Your task to perform on an android device: What is the news today? Image 0: 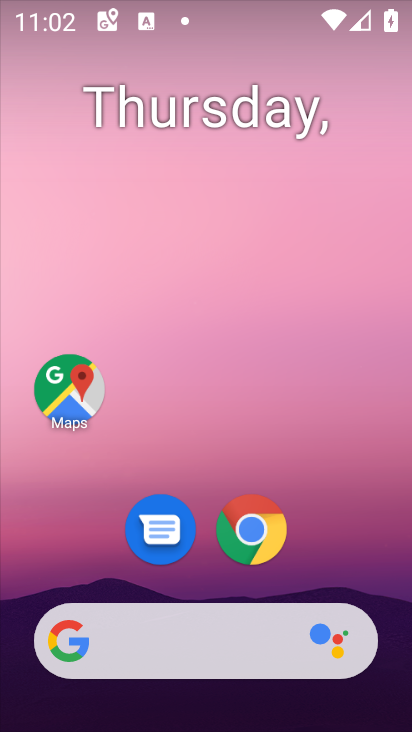
Step 0: drag from (153, 487) to (160, 182)
Your task to perform on an android device: What is the news today? Image 1: 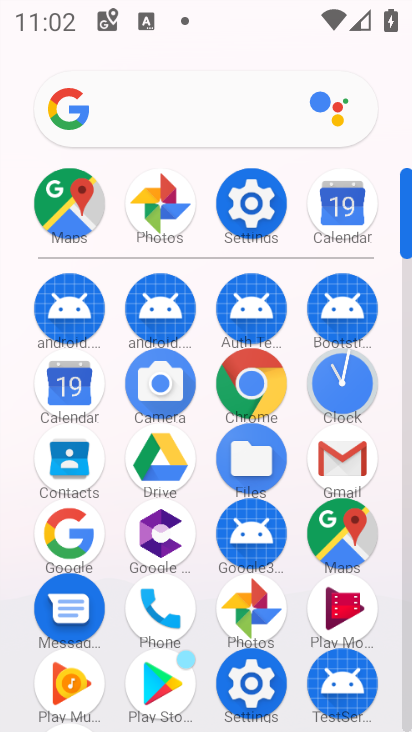
Step 1: drag from (128, 402) to (132, 271)
Your task to perform on an android device: What is the news today? Image 2: 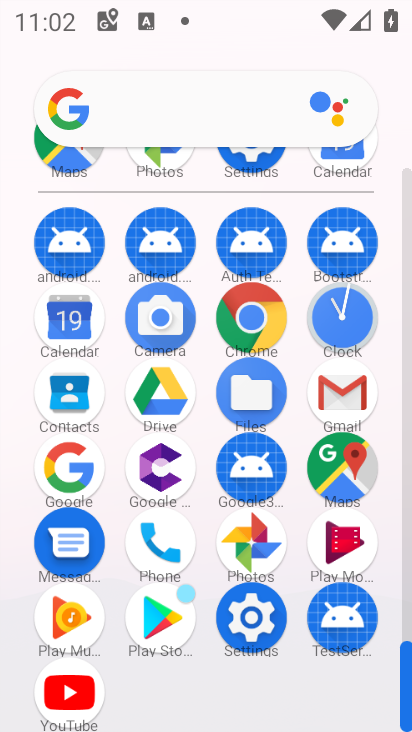
Step 2: click (57, 476)
Your task to perform on an android device: What is the news today? Image 3: 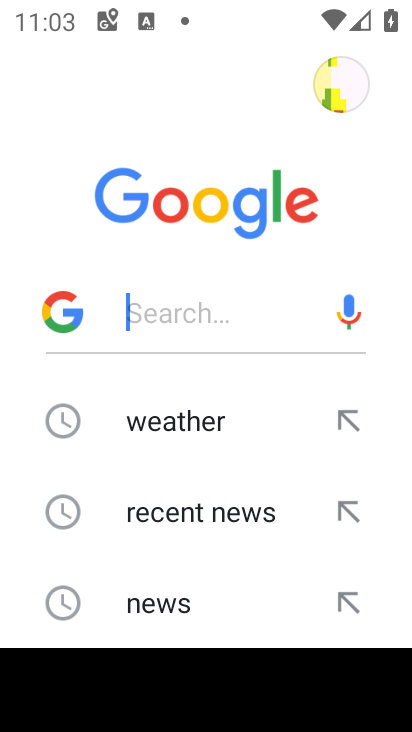
Step 3: click (184, 593)
Your task to perform on an android device: What is the news today? Image 4: 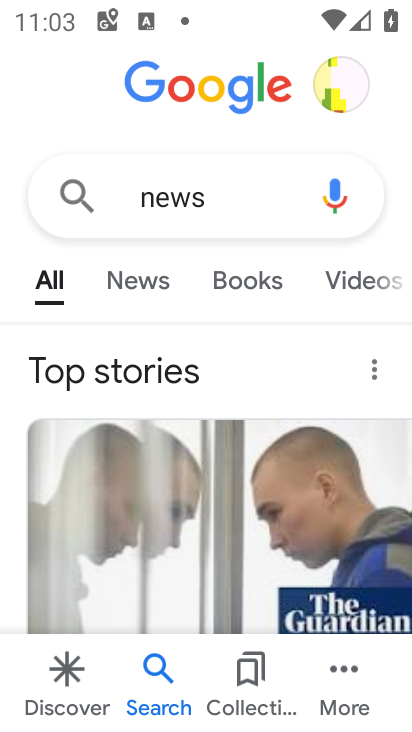
Step 4: click (122, 299)
Your task to perform on an android device: What is the news today? Image 5: 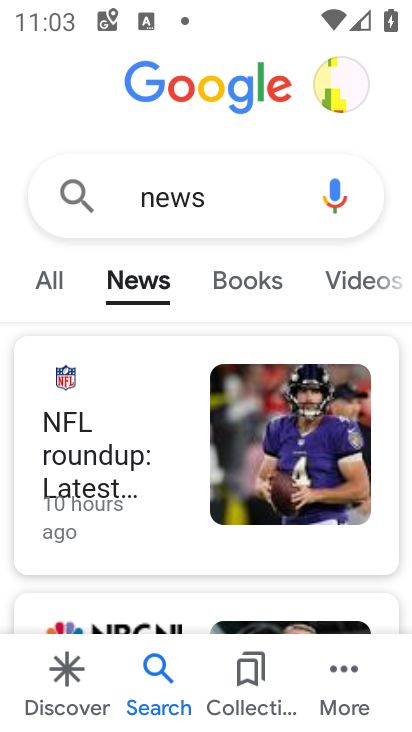
Step 5: task complete